Your task to perform on an android device: Search for Mexican restaurants on Maps Image 0: 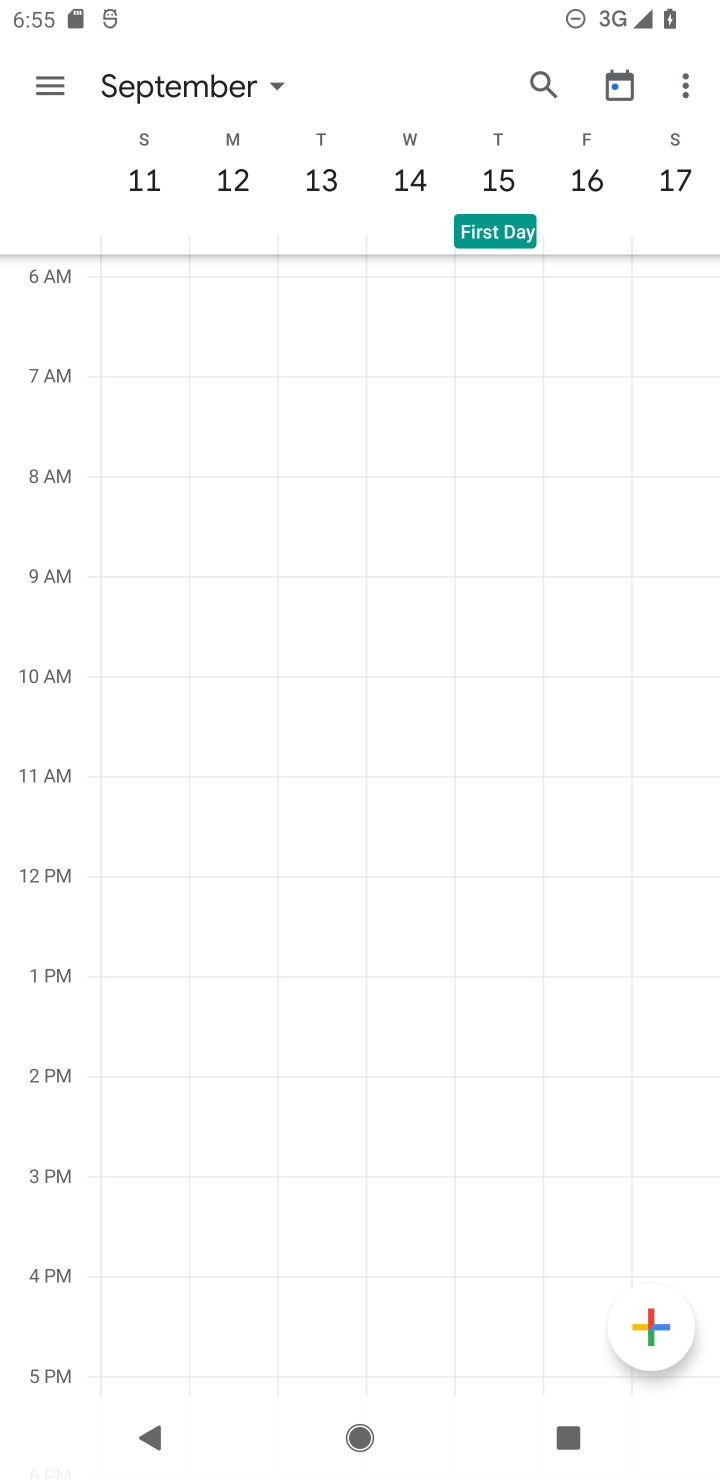
Step 0: press home button
Your task to perform on an android device: Search for Mexican restaurants on Maps Image 1: 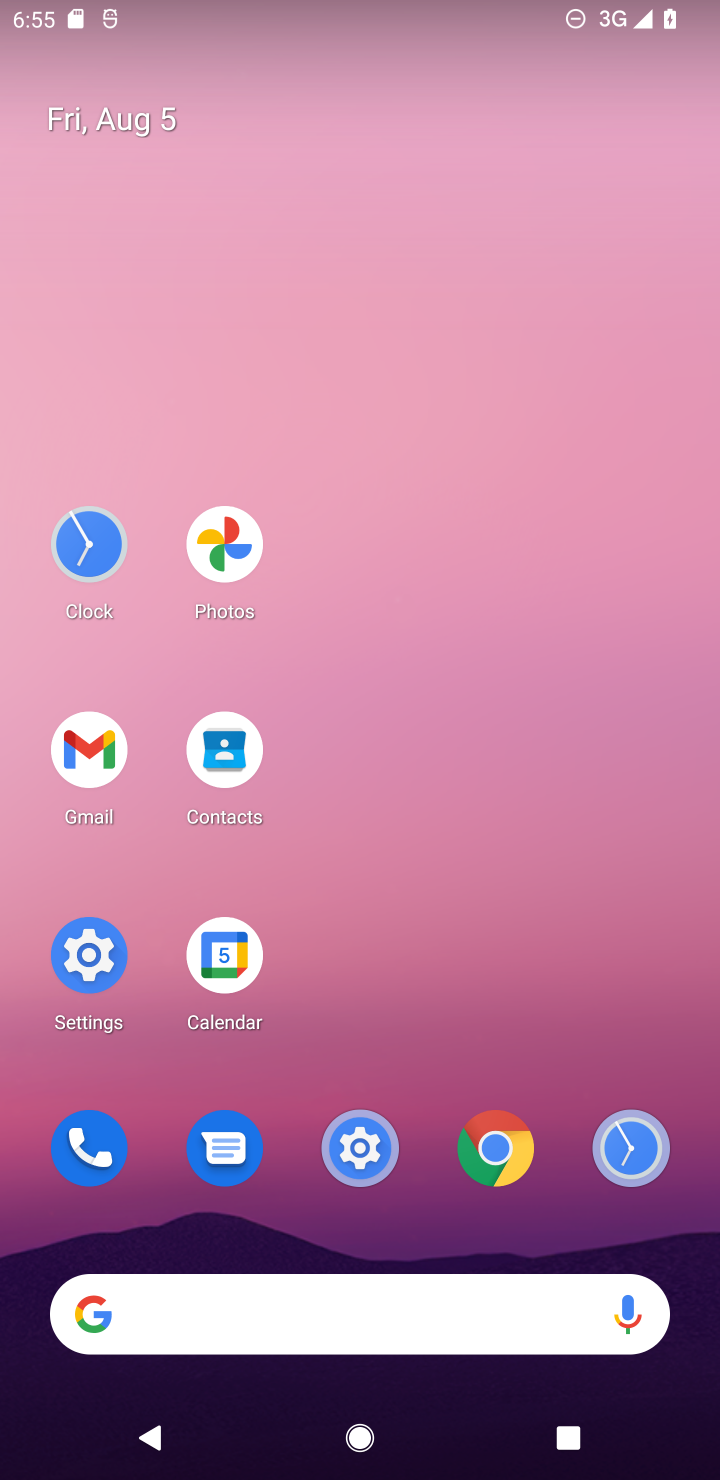
Step 1: drag from (463, 1045) to (329, 227)
Your task to perform on an android device: Search for Mexican restaurants on Maps Image 2: 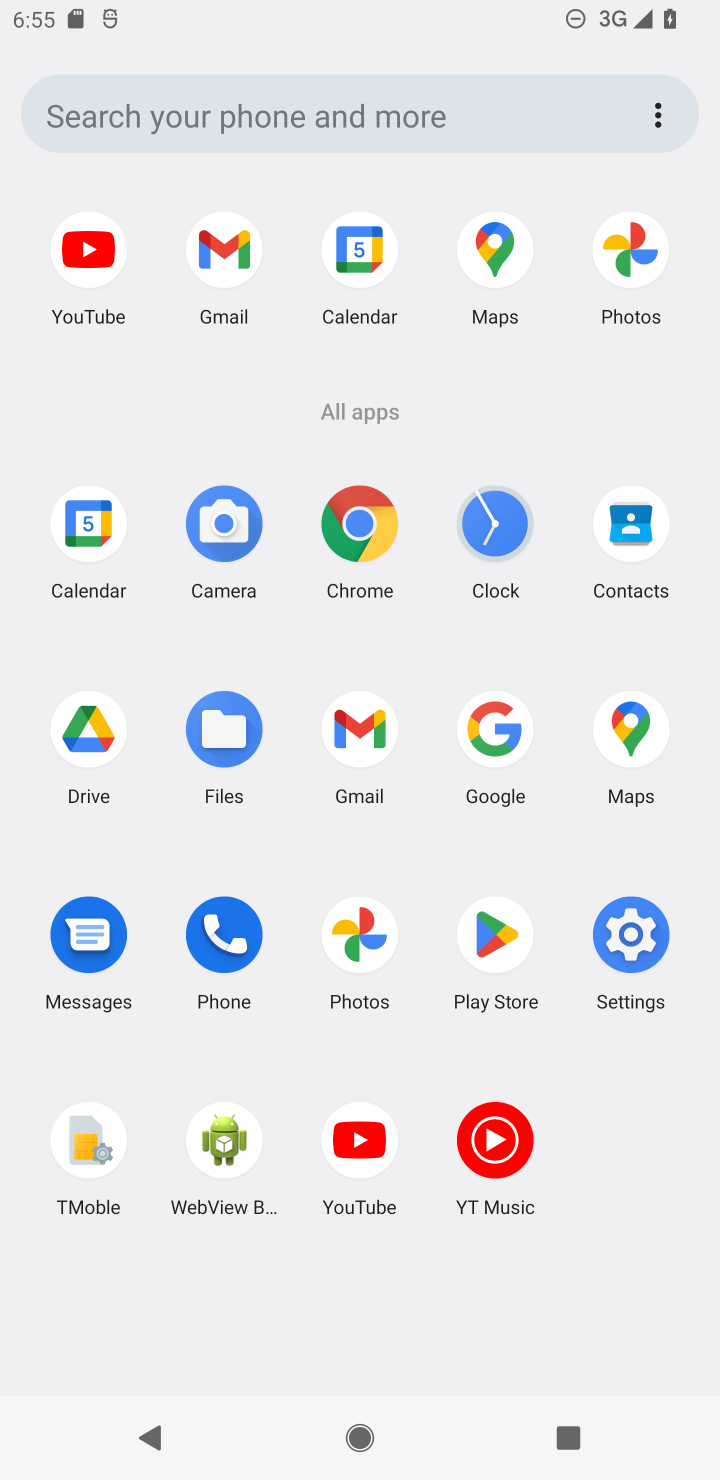
Step 2: click (637, 715)
Your task to perform on an android device: Search for Mexican restaurants on Maps Image 3: 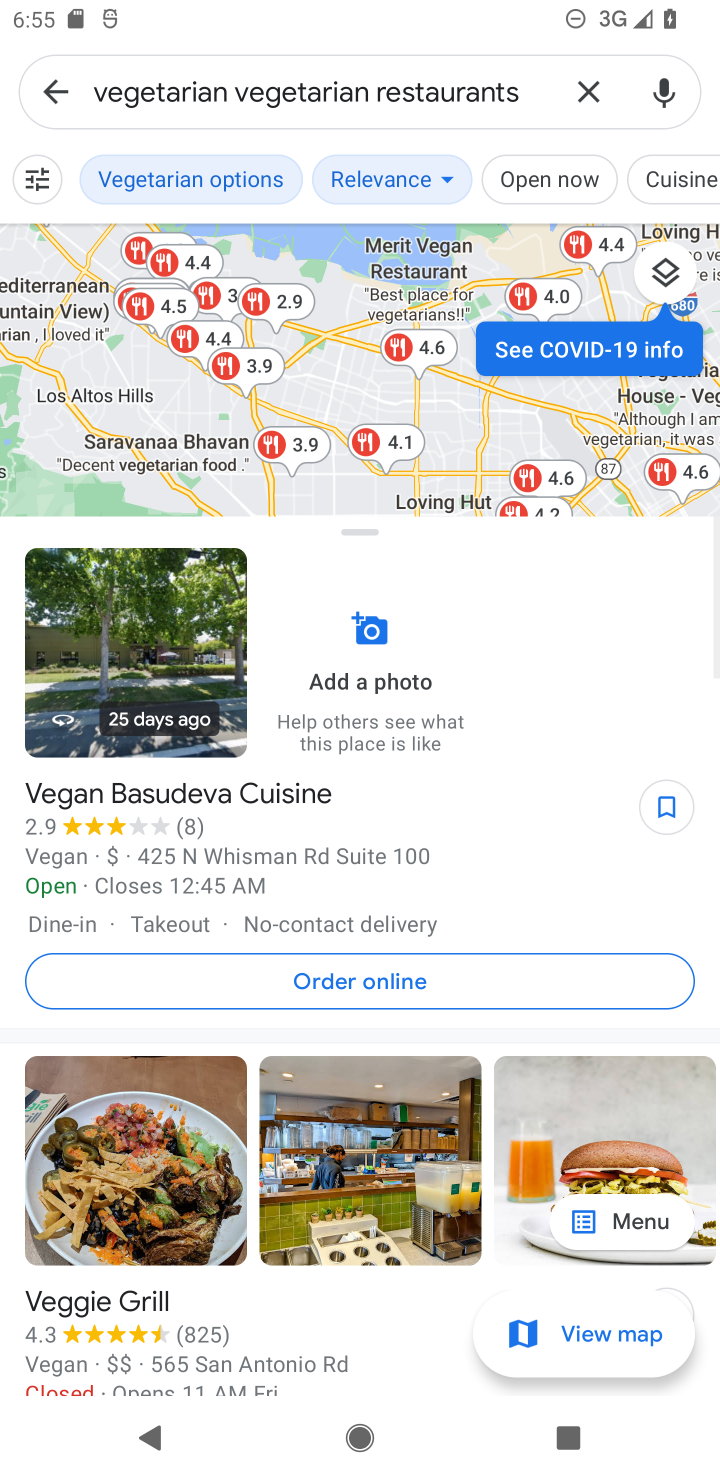
Step 3: click (596, 98)
Your task to perform on an android device: Search for Mexican restaurants on Maps Image 4: 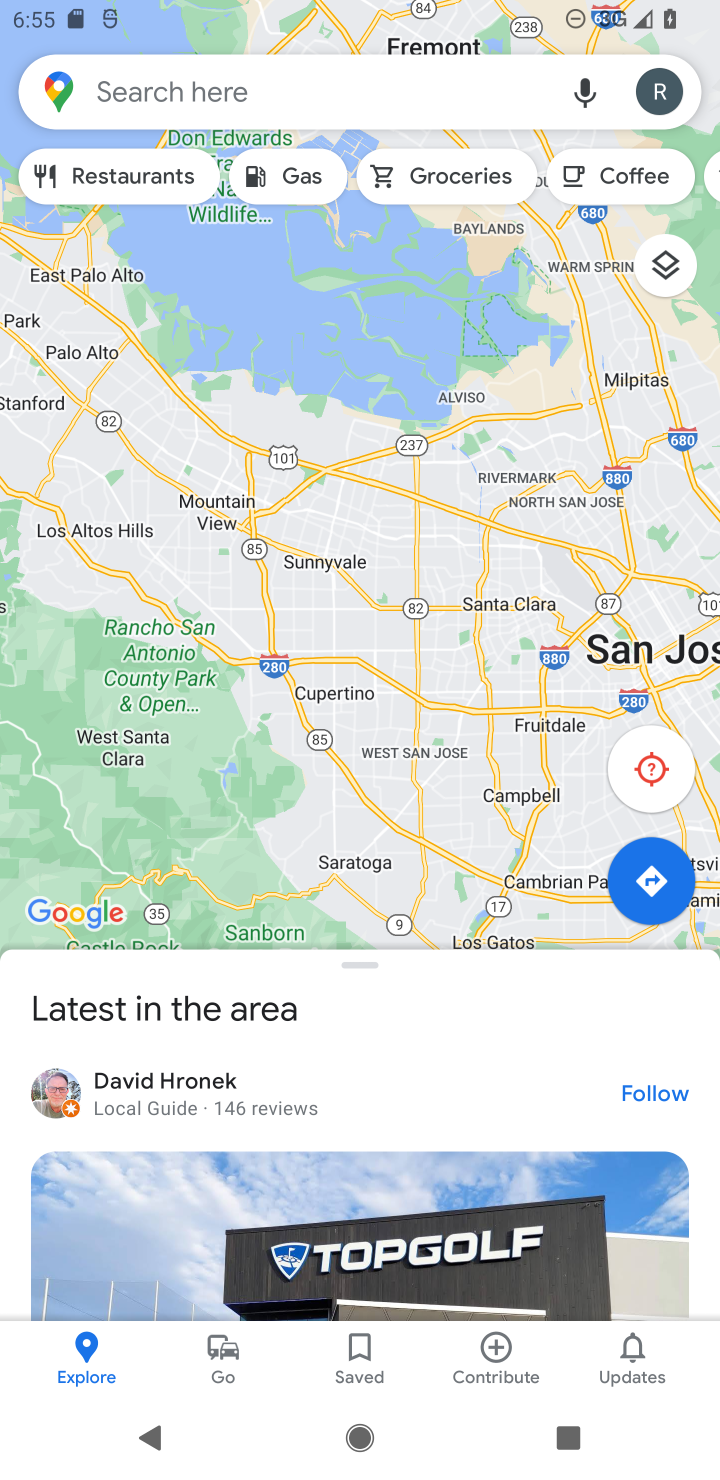
Step 4: click (246, 74)
Your task to perform on an android device: Search for Mexican restaurants on Maps Image 5: 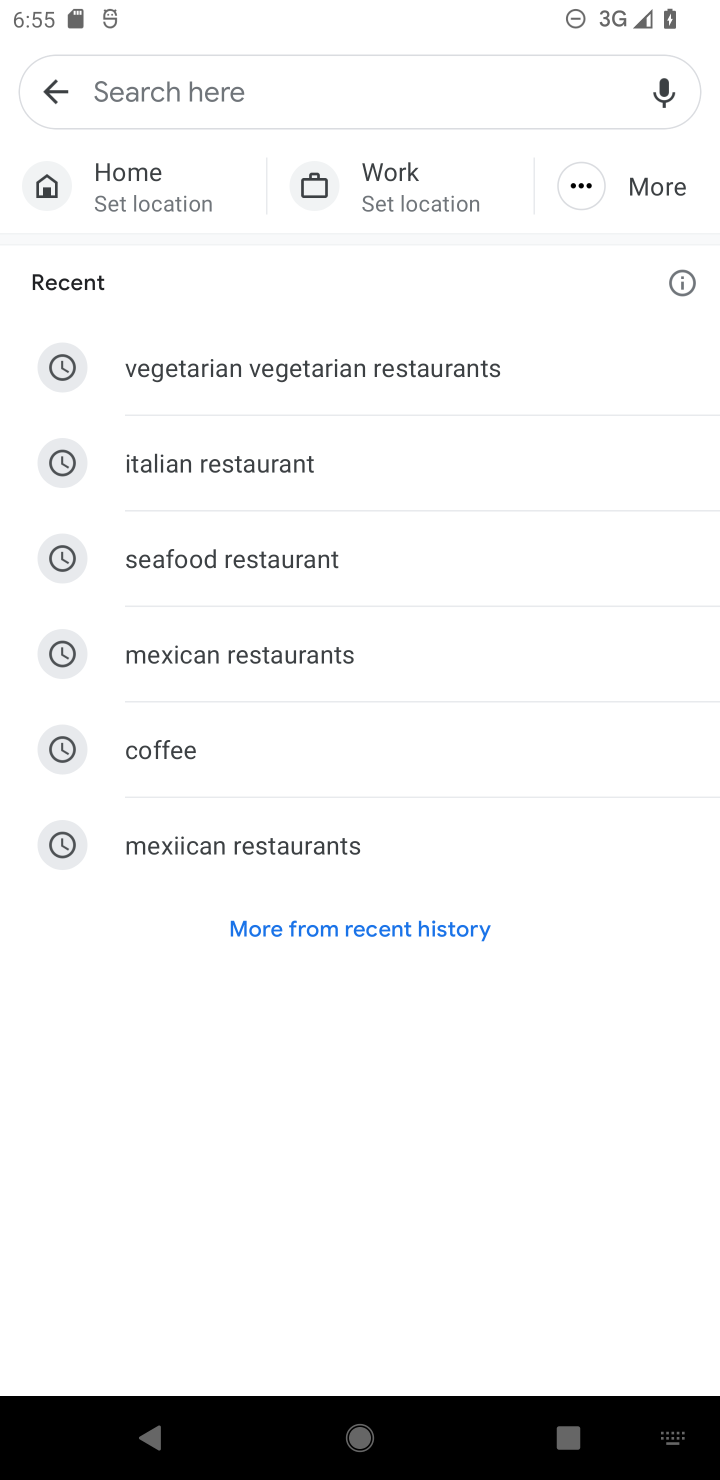
Step 5: click (249, 653)
Your task to perform on an android device: Search for Mexican restaurants on Maps Image 6: 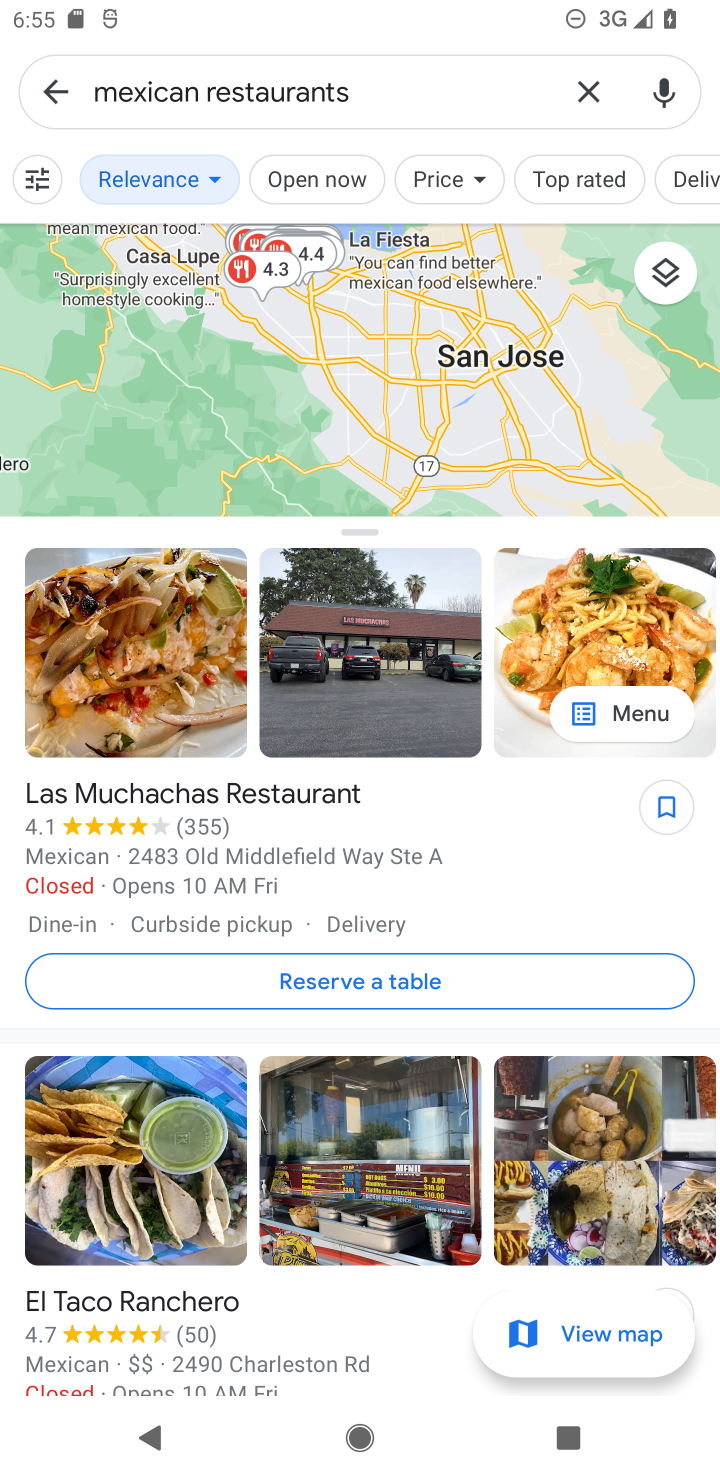
Step 6: task complete